Your task to perform on an android device: Go to Google Image 0: 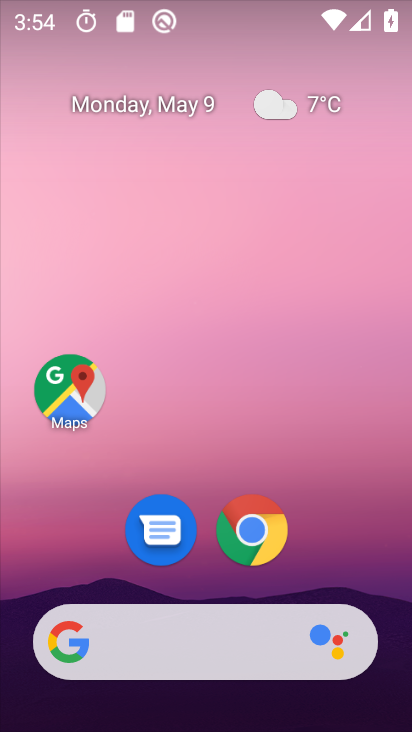
Step 0: drag from (167, 568) to (255, 16)
Your task to perform on an android device: Go to Google Image 1: 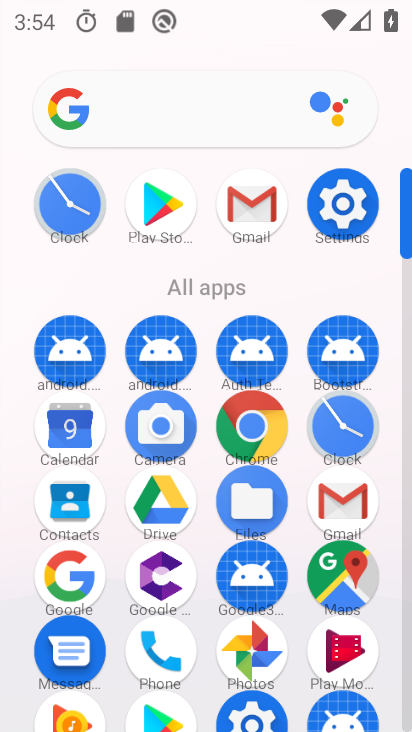
Step 1: click (78, 568)
Your task to perform on an android device: Go to Google Image 2: 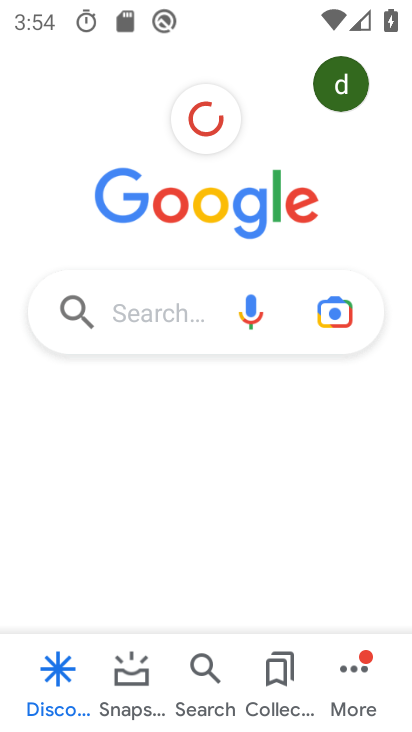
Step 2: task complete